Your task to perform on an android device: Open the calendar app, open the side menu, and click the "Day" option Image 0: 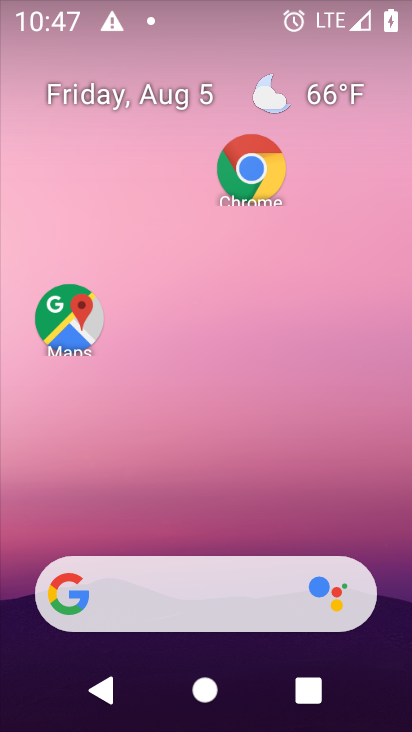
Step 0: drag from (194, 524) to (150, 152)
Your task to perform on an android device: Open the calendar app, open the side menu, and click the "Day" option Image 1: 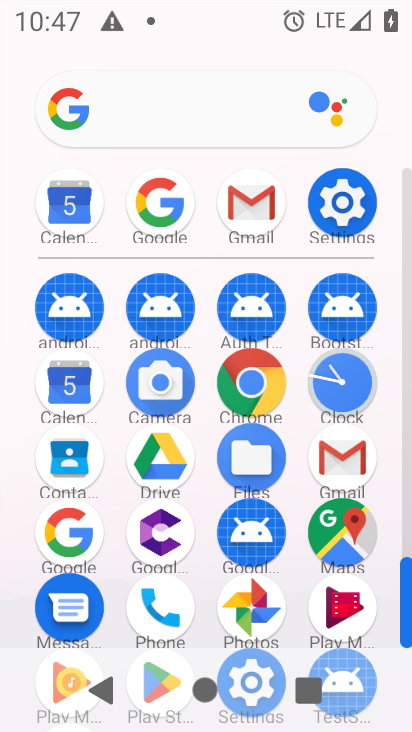
Step 1: click (65, 390)
Your task to perform on an android device: Open the calendar app, open the side menu, and click the "Day" option Image 2: 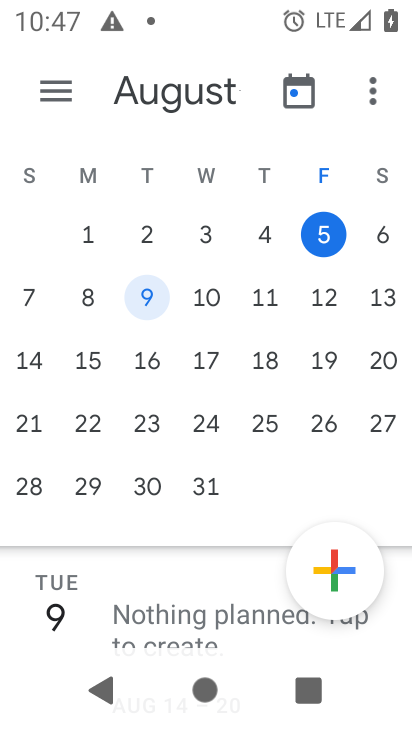
Step 2: click (54, 90)
Your task to perform on an android device: Open the calendar app, open the side menu, and click the "Day" option Image 3: 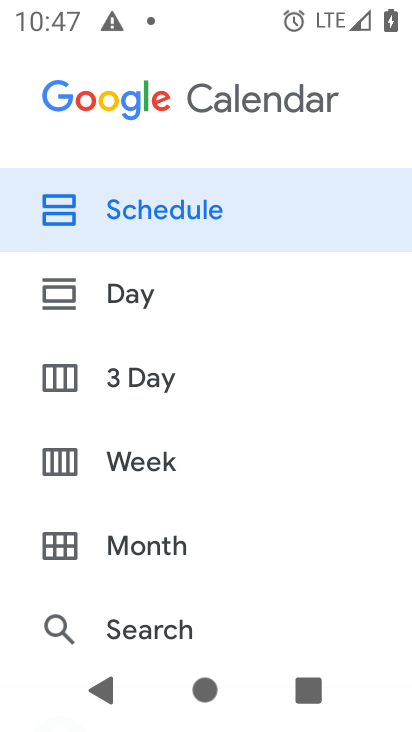
Step 3: click (177, 293)
Your task to perform on an android device: Open the calendar app, open the side menu, and click the "Day" option Image 4: 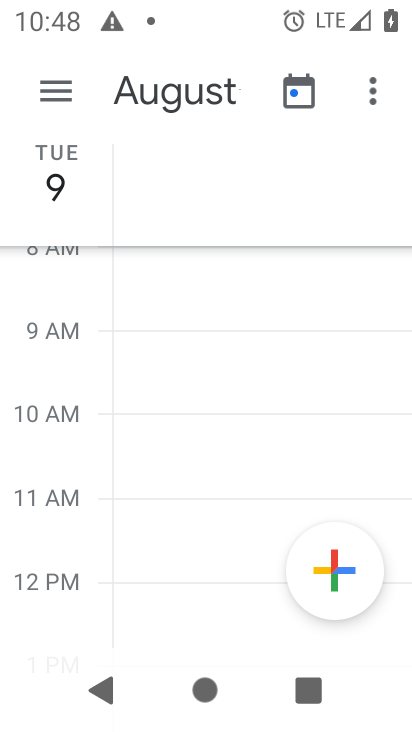
Step 4: task complete